Your task to perform on an android device: Open the phone app and click the voicemail tab. Image 0: 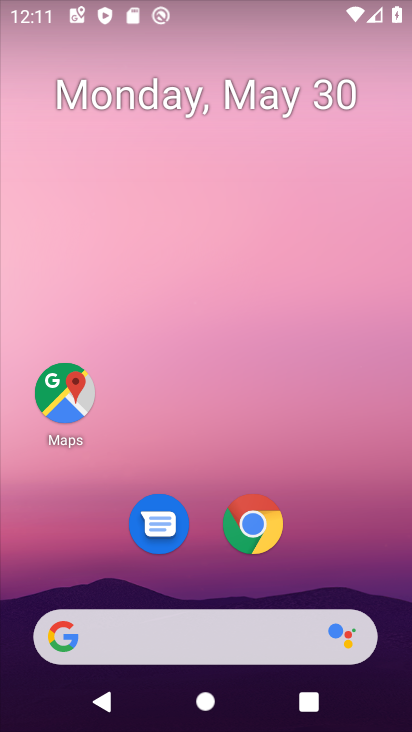
Step 0: drag from (214, 446) to (230, 21)
Your task to perform on an android device: Open the phone app and click the voicemail tab. Image 1: 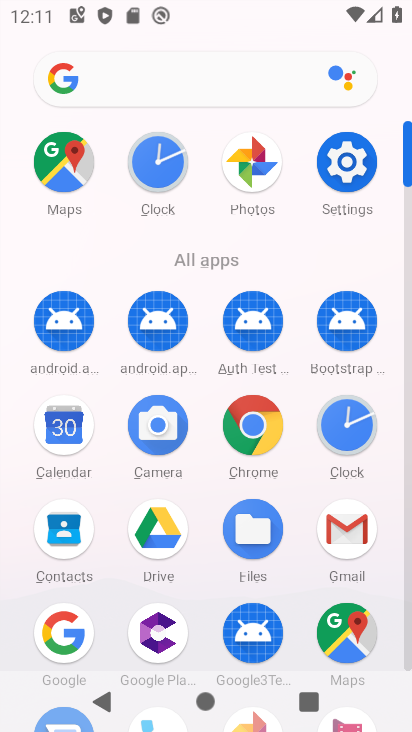
Step 1: drag from (205, 519) to (220, 232)
Your task to perform on an android device: Open the phone app and click the voicemail tab. Image 2: 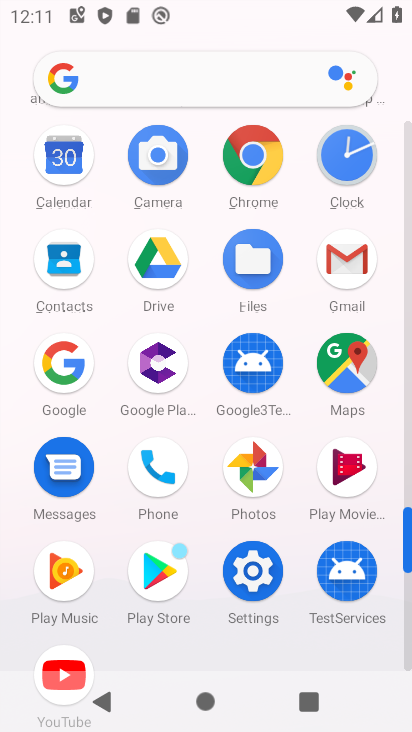
Step 2: click (169, 455)
Your task to perform on an android device: Open the phone app and click the voicemail tab. Image 3: 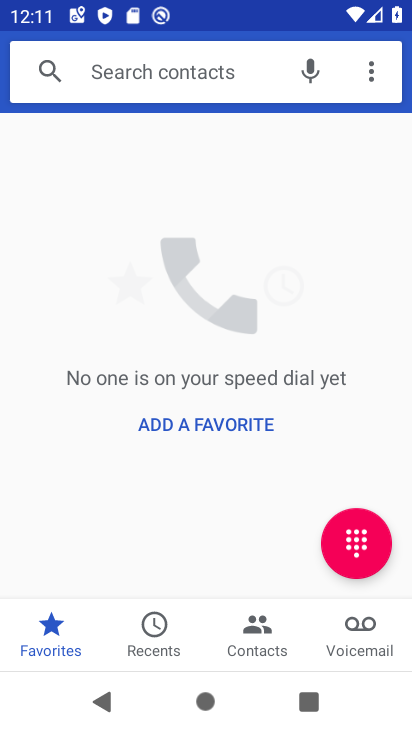
Step 3: click (357, 627)
Your task to perform on an android device: Open the phone app and click the voicemail tab. Image 4: 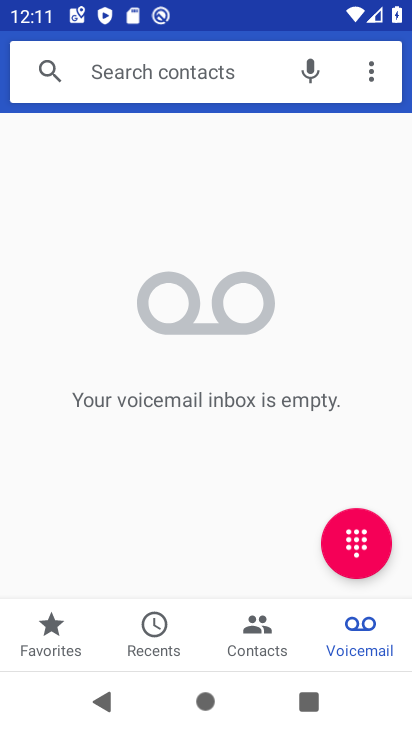
Step 4: task complete